Your task to perform on an android device: Go to Wikipedia Image 0: 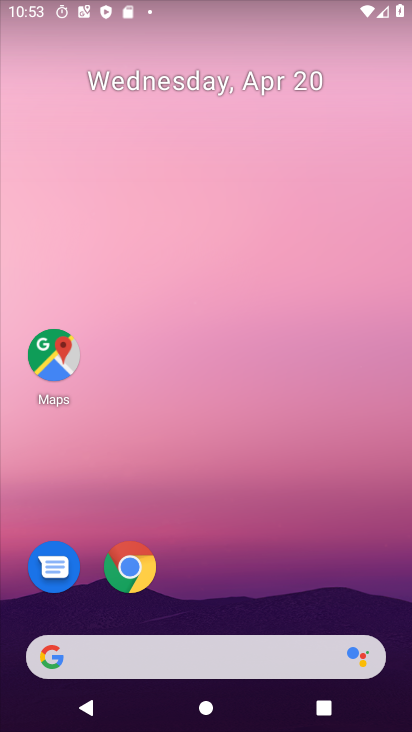
Step 0: click (140, 575)
Your task to perform on an android device: Go to Wikipedia Image 1: 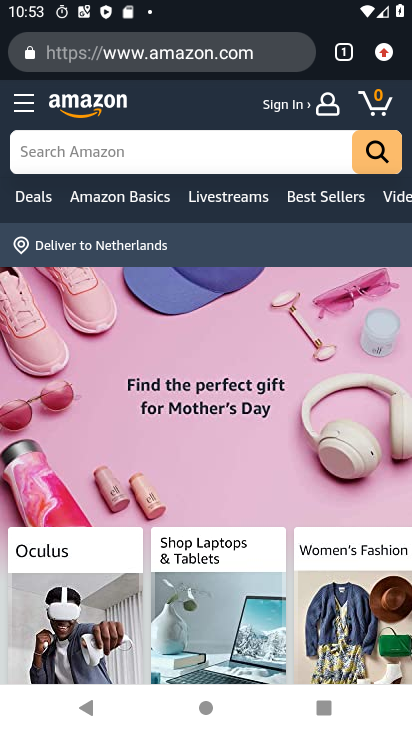
Step 1: click (343, 45)
Your task to perform on an android device: Go to Wikipedia Image 2: 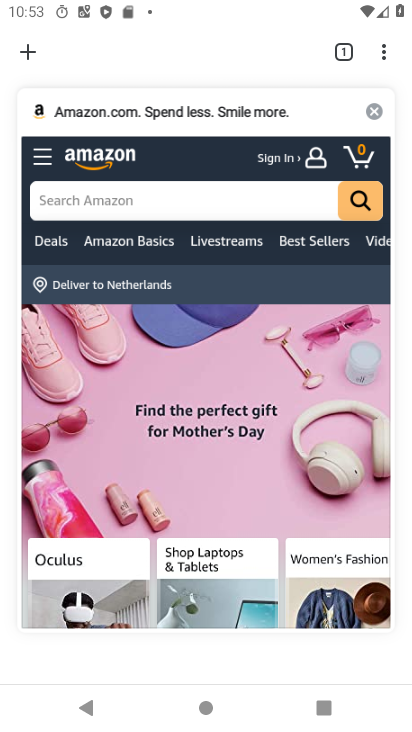
Step 2: click (22, 55)
Your task to perform on an android device: Go to Wikipedia Image 3: 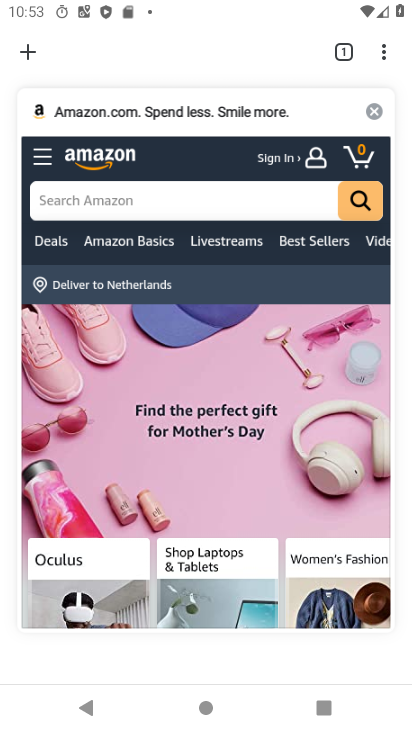
Step 3: click (20, 57)
Your task to perform on an android device: Go to Wikipedia Image 4: 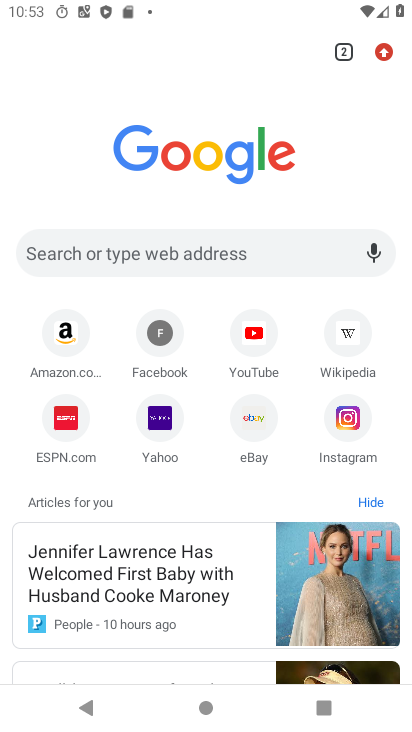
Step 4: click (173, 235)
Your task to perform on an android device: Go to Wikipedia Image 5: 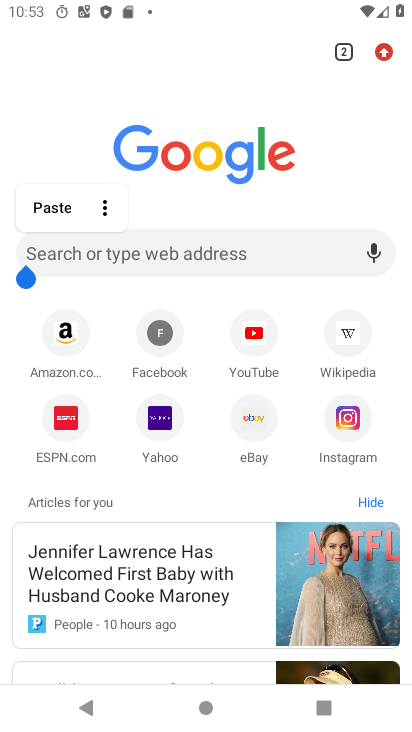
Step 5: click (179, 249)
Your task to perform on an android device: Go to Wikipedia Image 6: 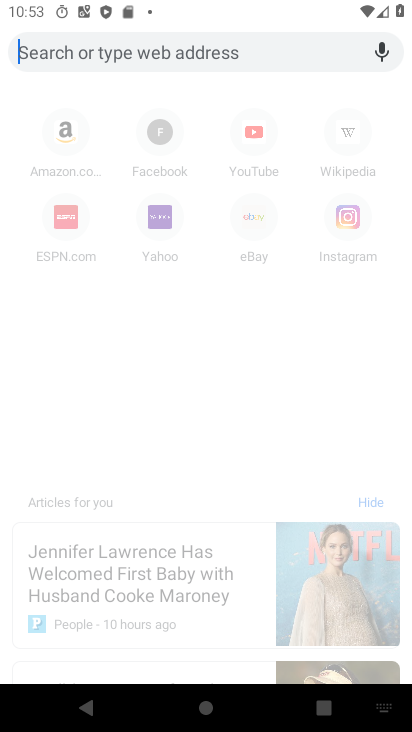
Step 6: click (144, 47)
Your task to perform on an android device: Go to Wikipedia Image 7: 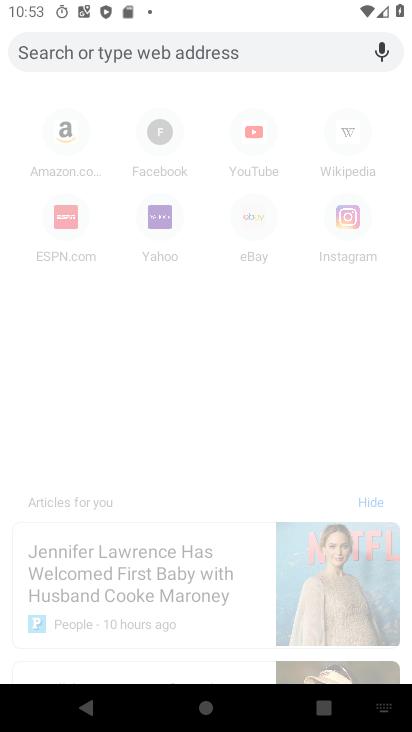
Step 7: type "Wikipedia"
Your task to perform on an android device: Go to Wikipedia Image 8: 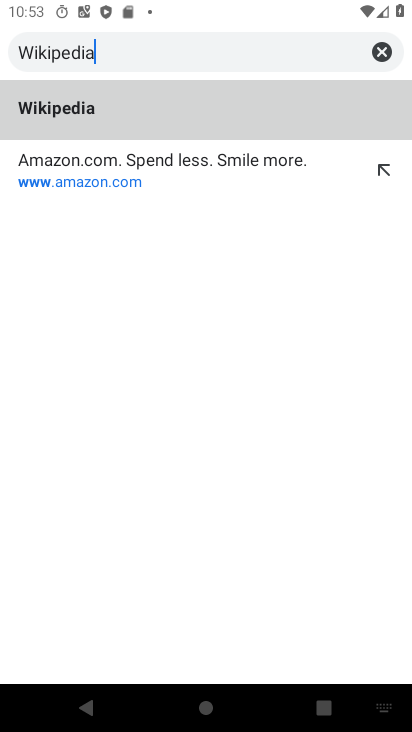
Step 8: type ""
Your task to perform on an android device: Go to Wikipedia Image 9: 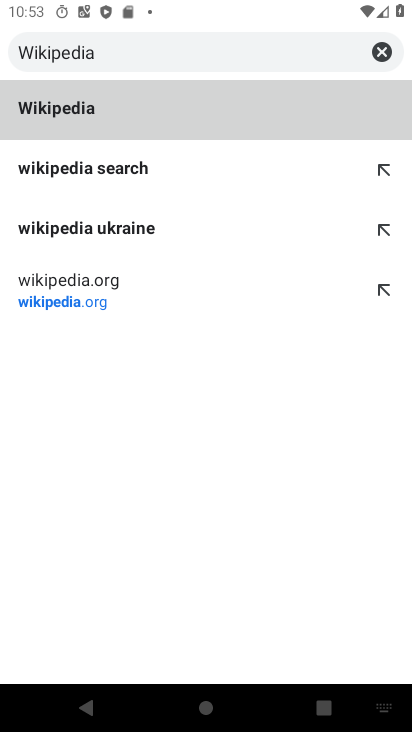
Step 9: click (238, 117)
Your task to perform on an android device: Go to Wikipedia Image 10: 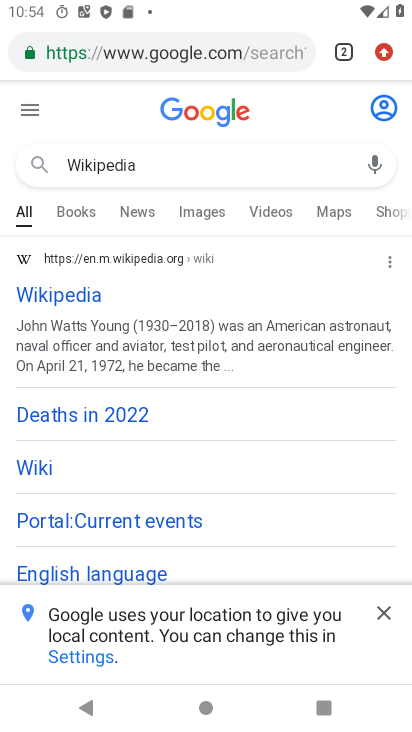
Step 10: click (76, 300)
Your task to perform on an android device: Go to Wikipedia Image 11: 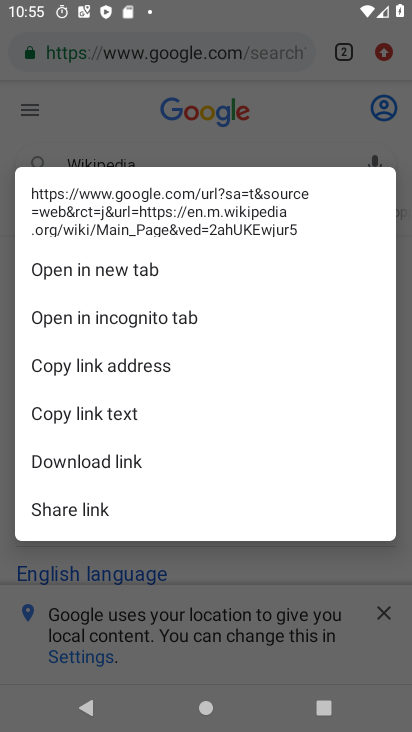
Step 11: click (152, 622)
Your task to perform on an android device: Go to Wikipedia Image 12: 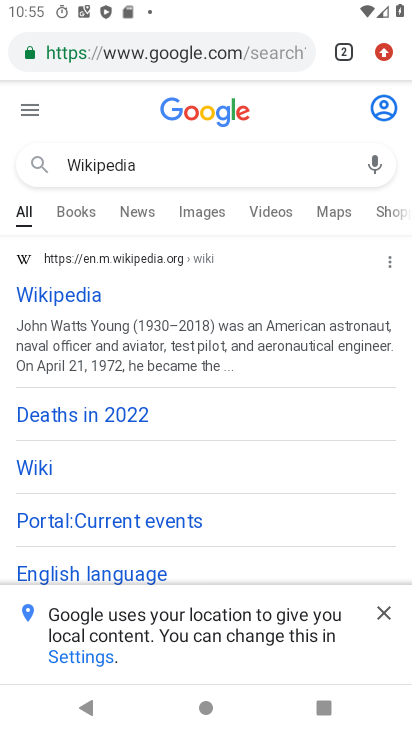
Step 12: click (76, 295)
Your task to perform on an android device: Go to Wikipedia Image 13: 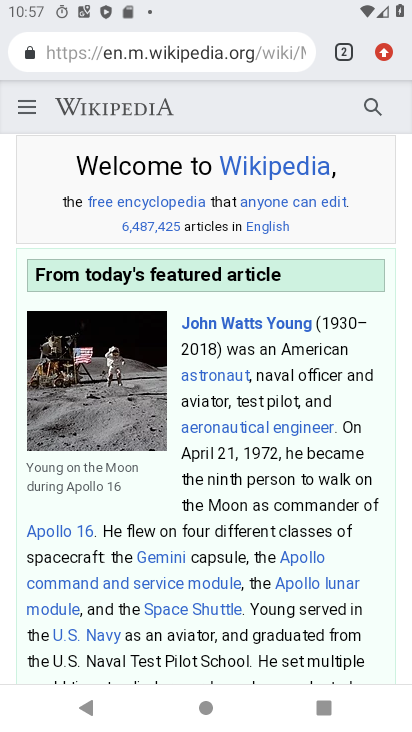
Step 13: task complete